Your task to perform on an android device: toggle wifi Image 0: 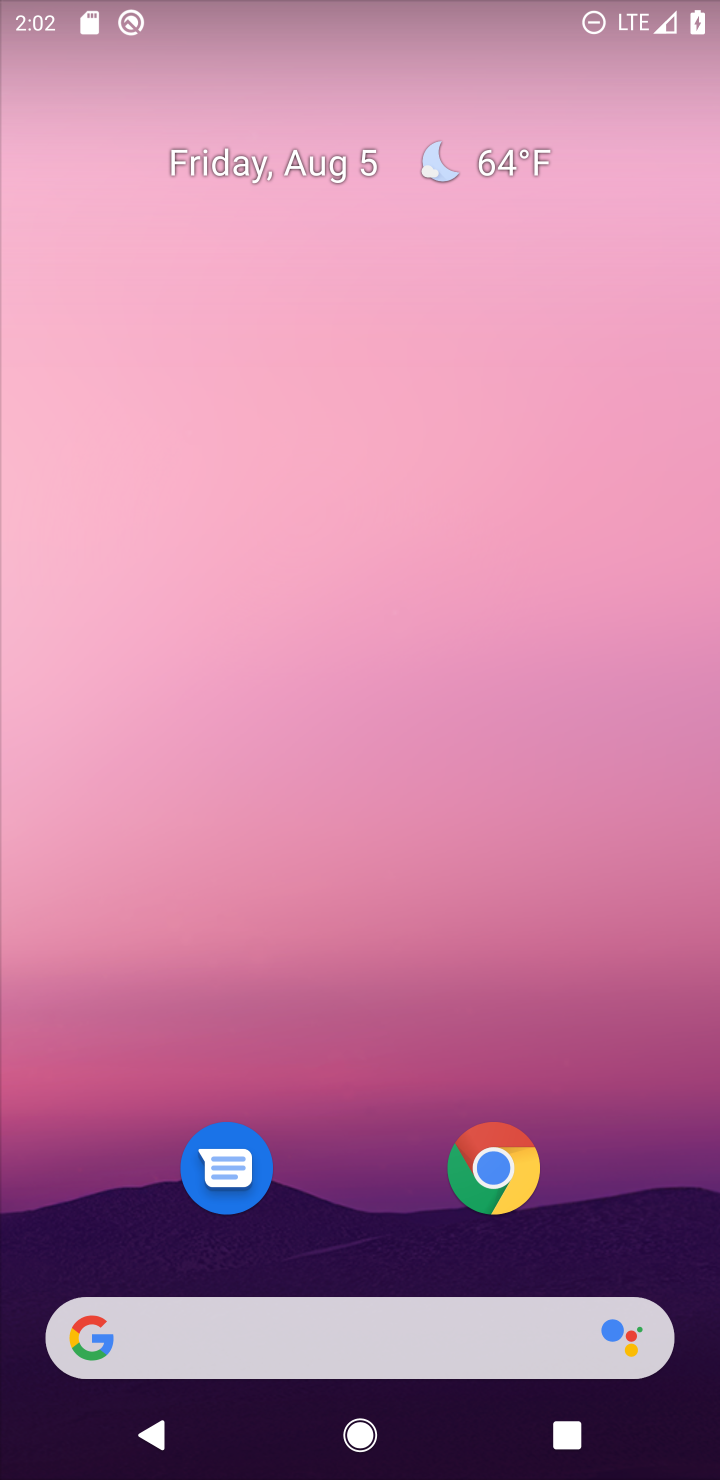
Step 0: drag from (309, 205) to (397, 1180)
Your task to perform on an android device: toggle wifi Image 1: 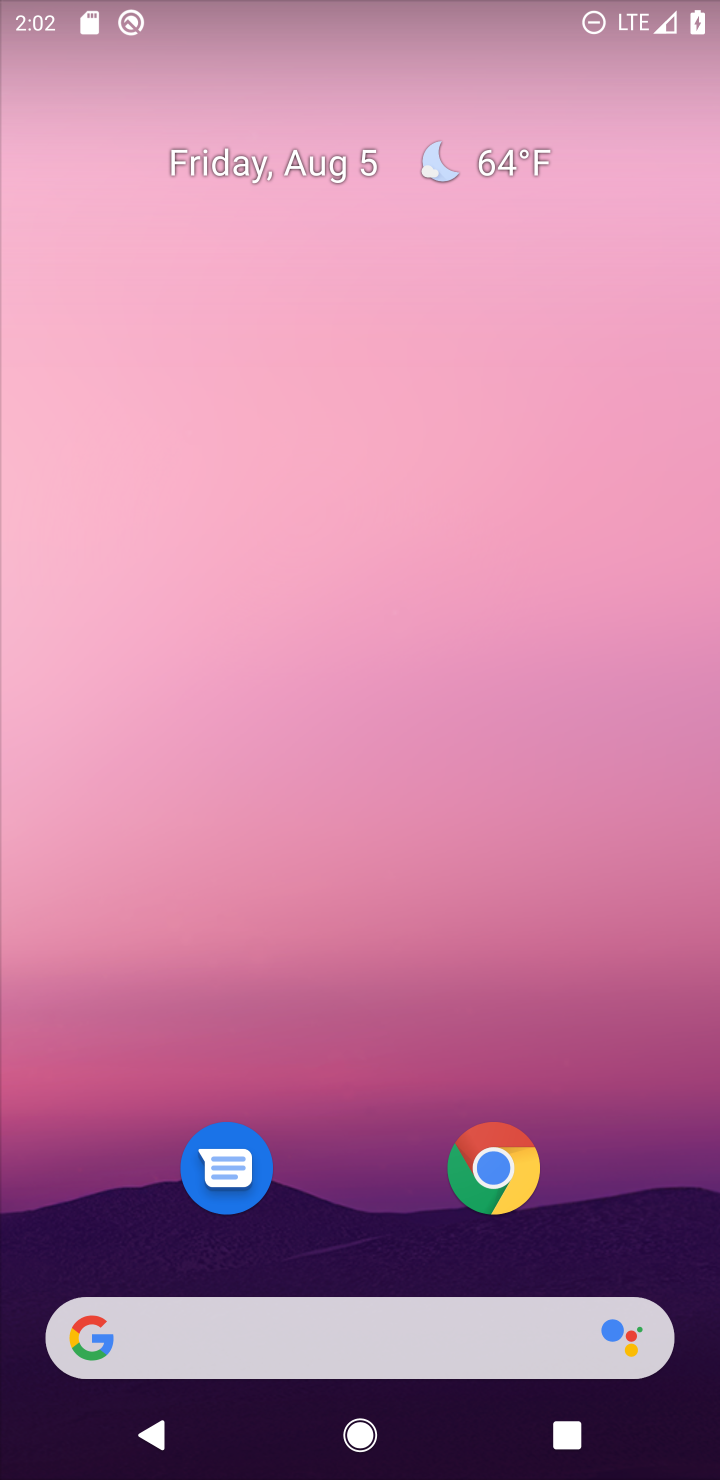
Step 1: drag from (383, 255) to (421, 1055)
Your task to perform on an android device: toggle wifi Image 2: 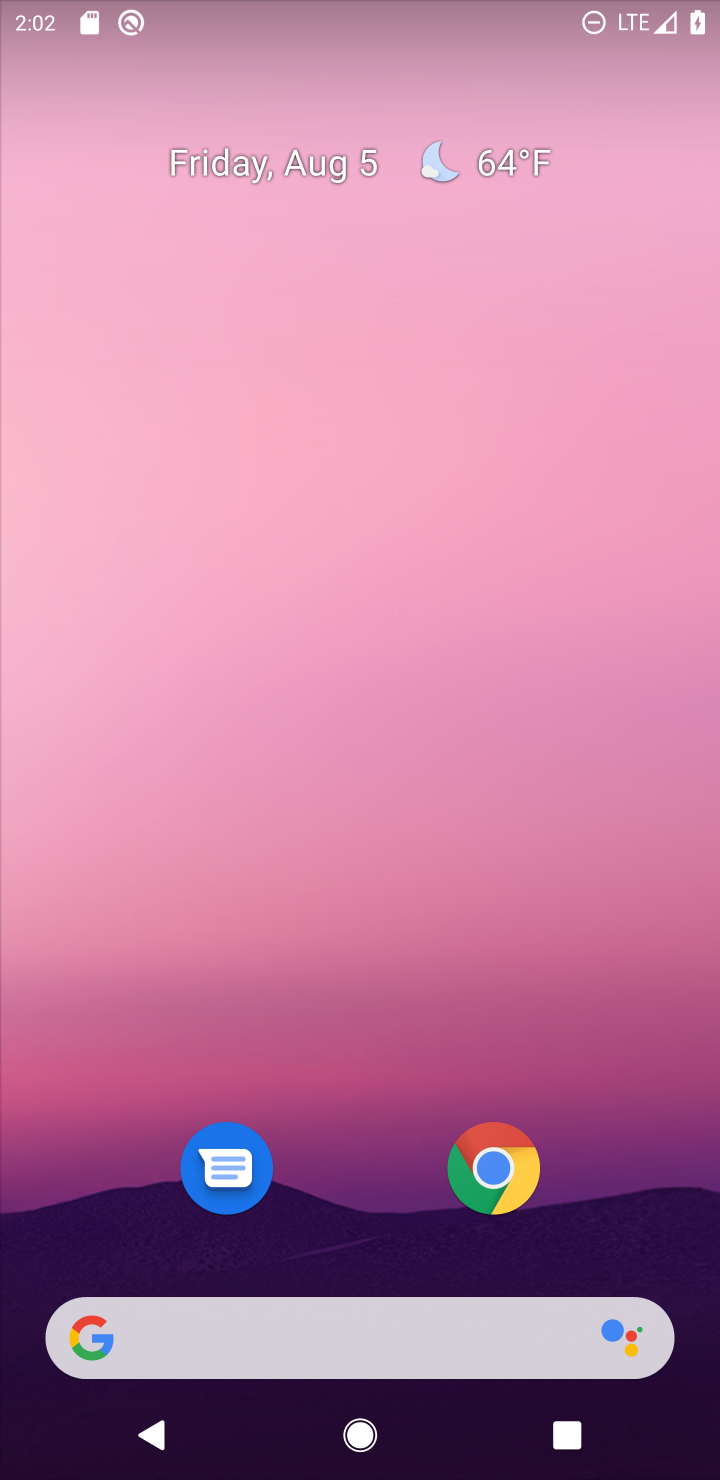
Step 2: click (325, 26)
Your task to perform on an android device: toggle wifi Image 3: 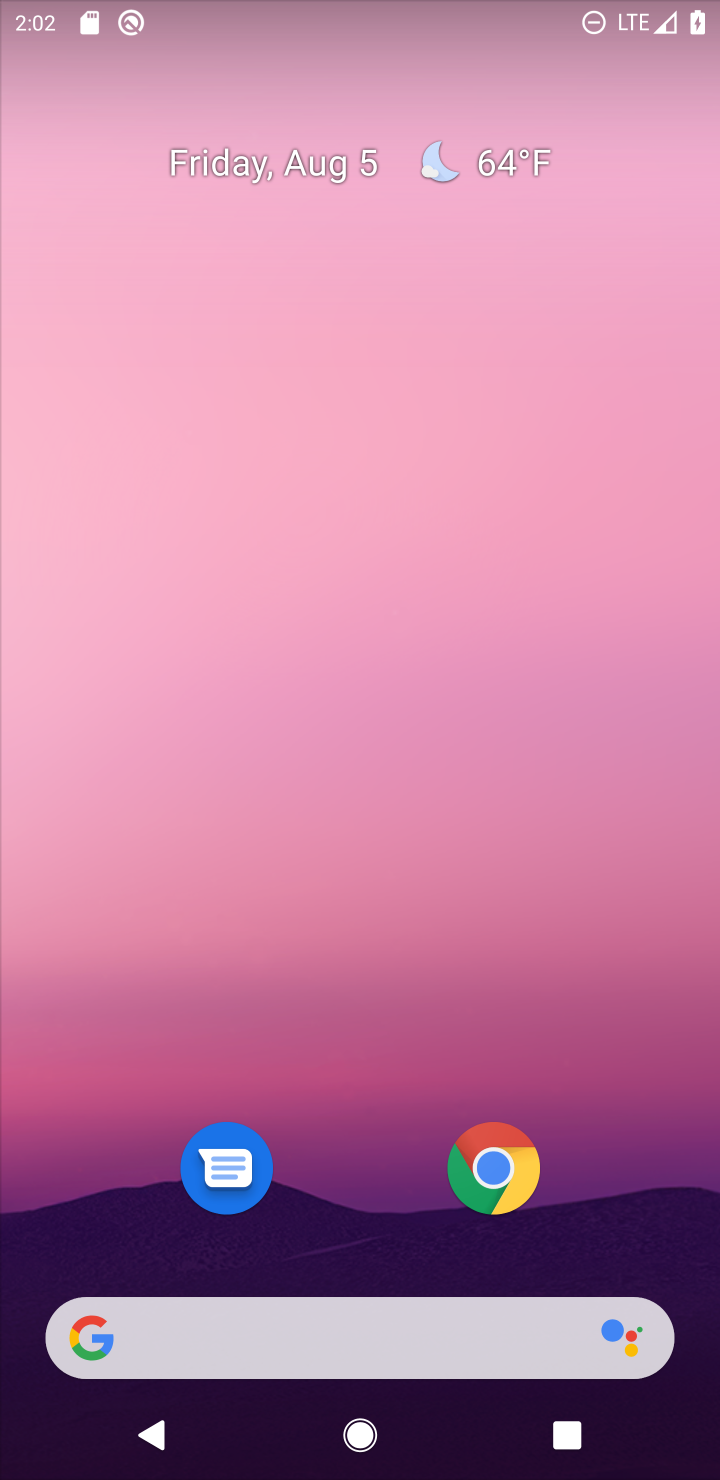
Step 3: drag from (339, 14) to (472, 1132)
Your task to perform on an android device: toggle wifi Image 4: 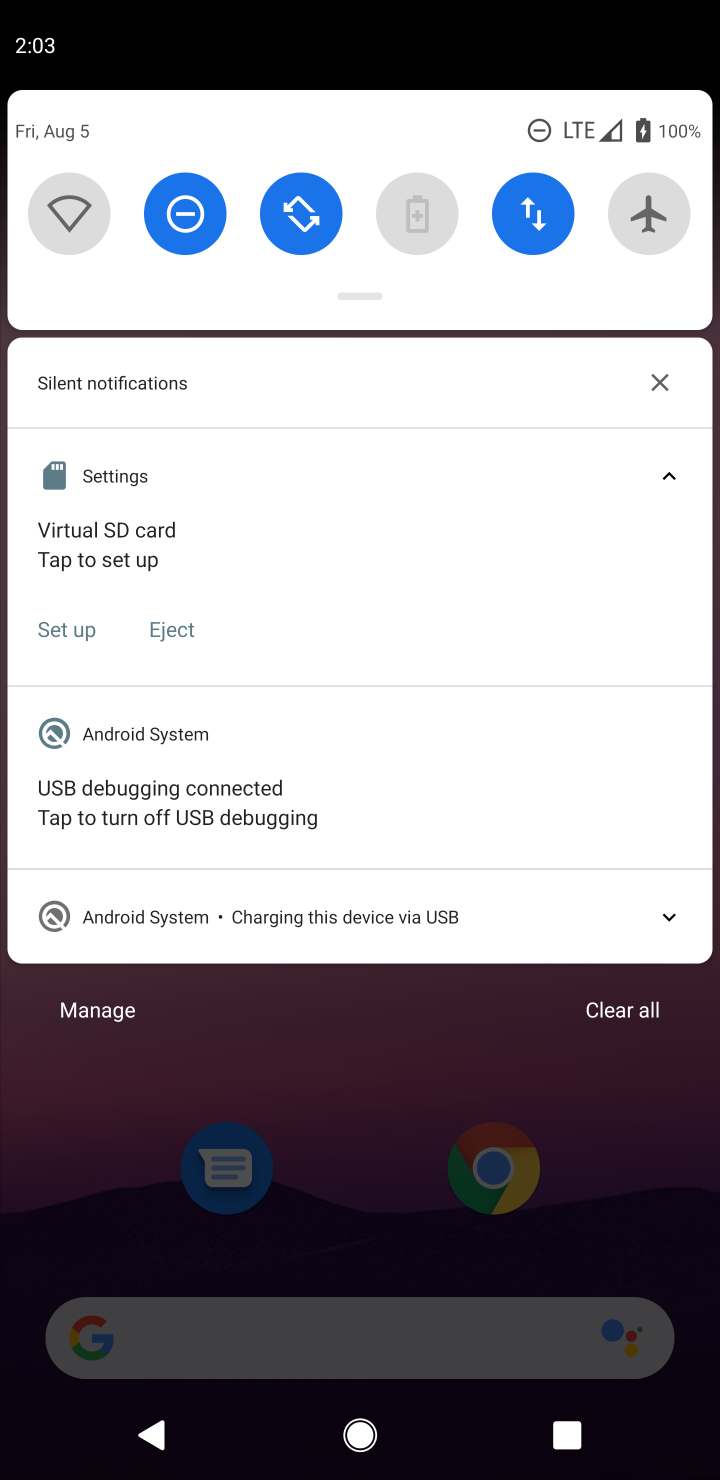
Step 4: click (57, 205)
Your task to perform on an android device: toggle wifi Image 5: 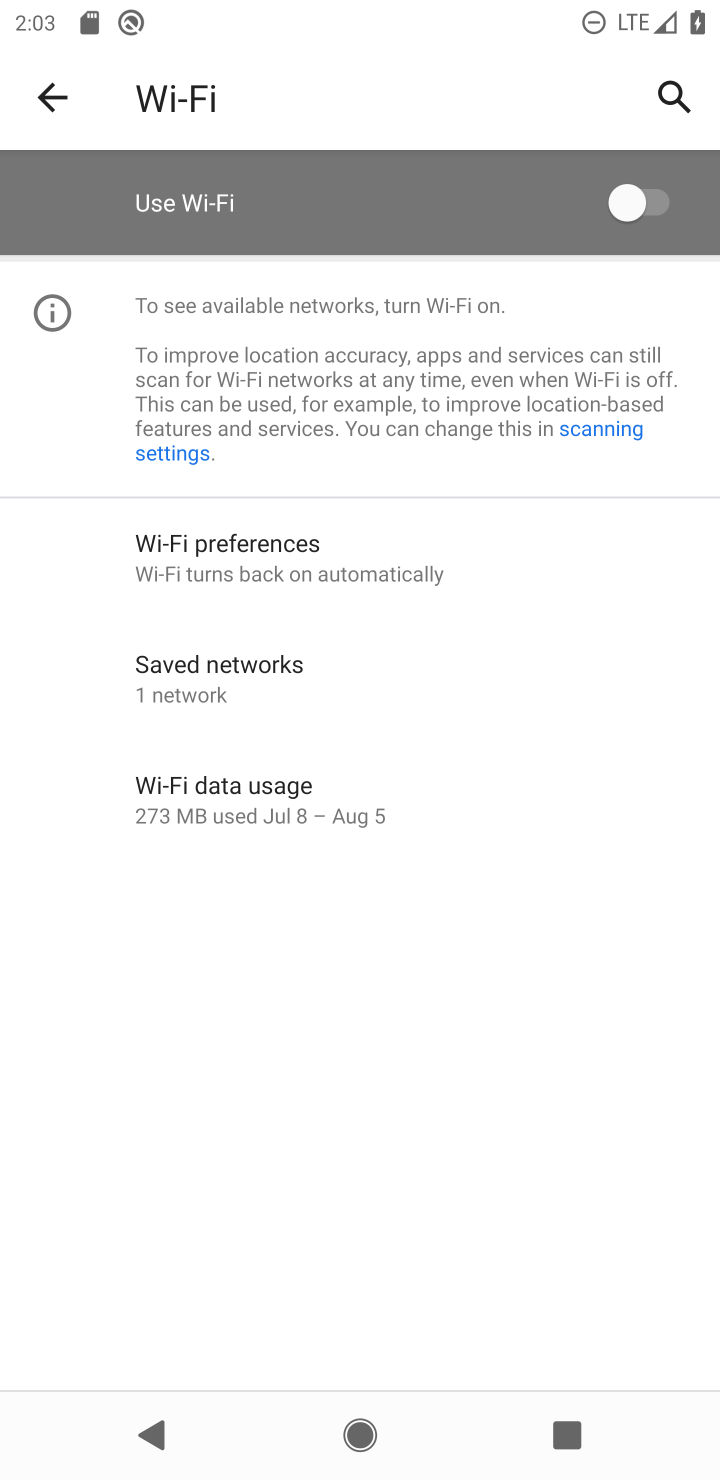
Step 5: click (605, 185)
Your task to perform on an android device: toggle wifi Image 6: 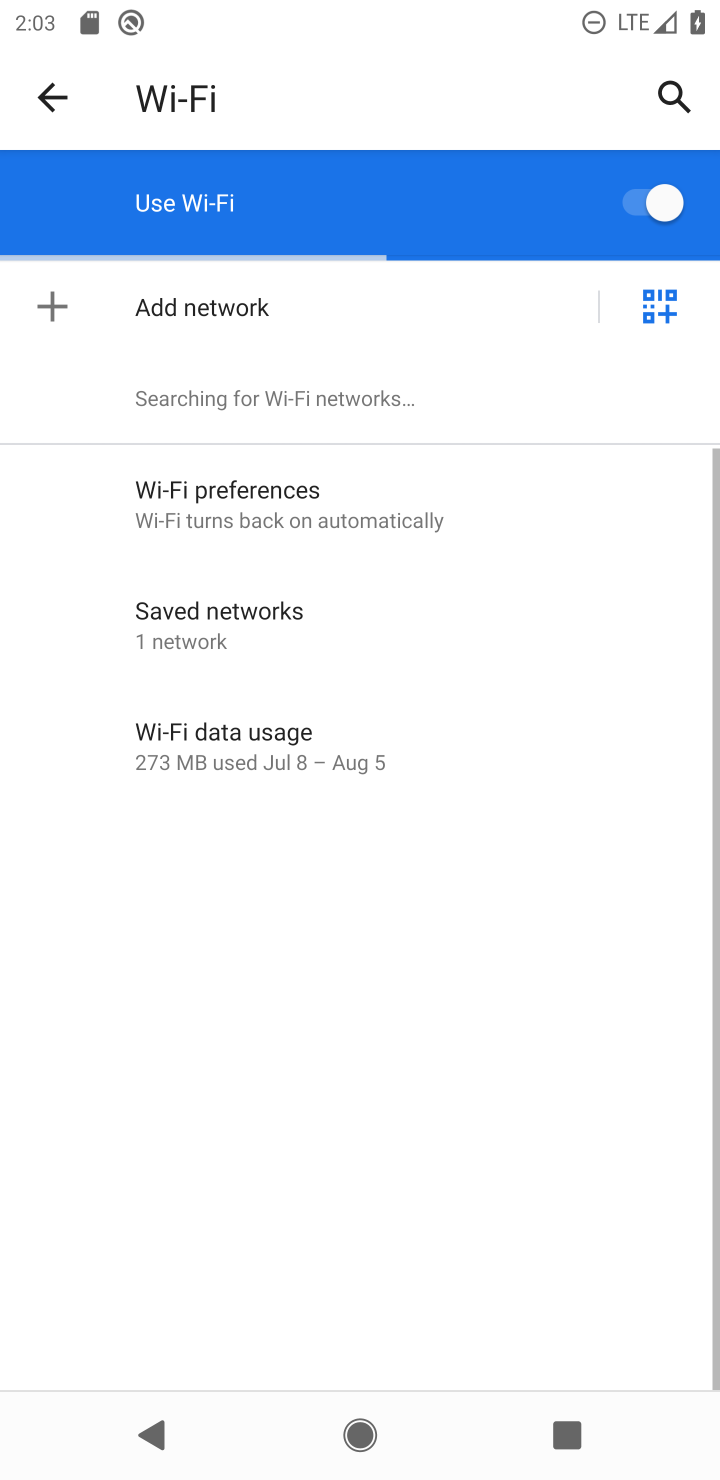
Step 6: task complete